Your task to perform on an android device: When is my next appointment? Image 0: 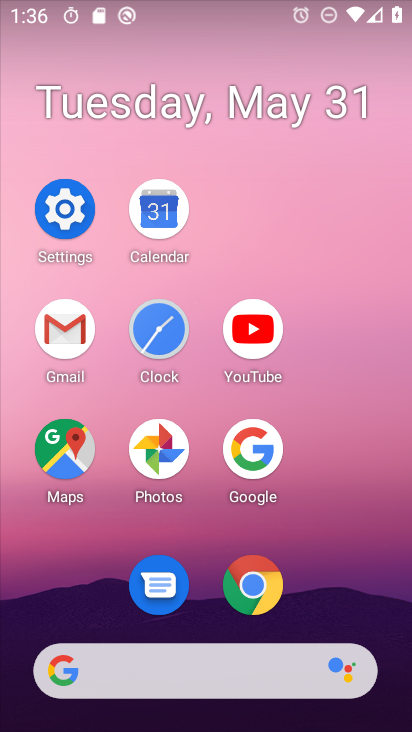
Step 0: click (191, 211)
Your task to perform on an android device: When is my next appointment? Image 1: 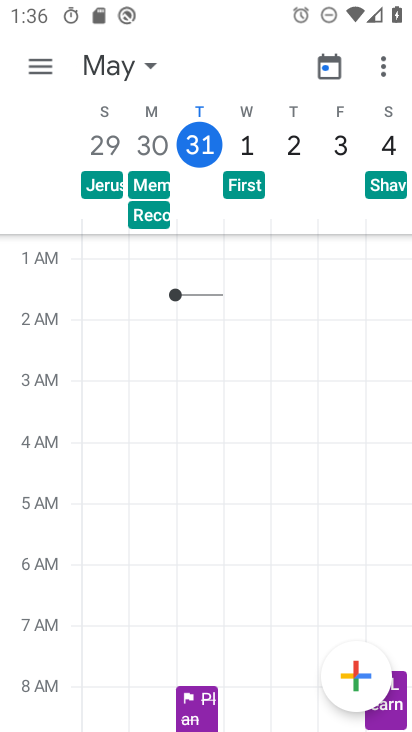
Step 1: click (260, 137)
Your task to perform on an android device: When is my next appointment? Image 2: 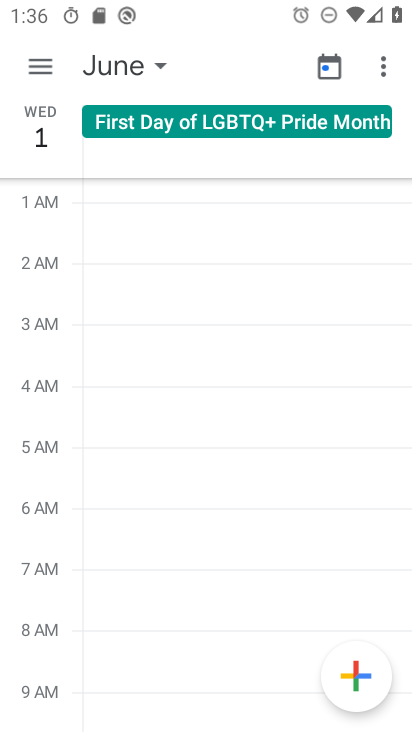
Step 2: task complete